Your task to perform on an android device: empty trash in the gmail app Image 0: 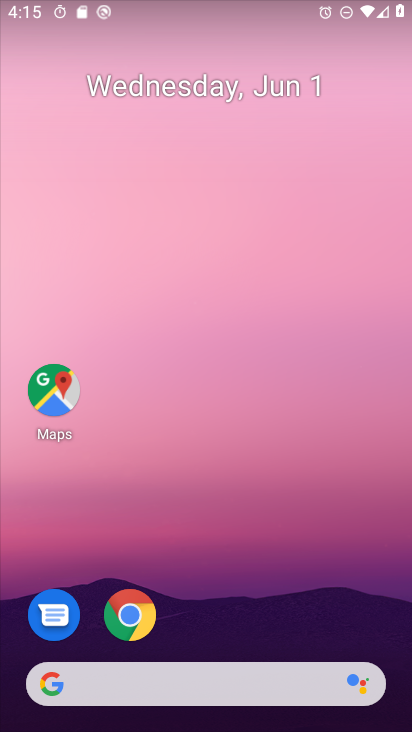
Step 0: drag from (316, 681) to (408, 395)
Your task to perform on an android device: empty trash in the gmail app Image 1: 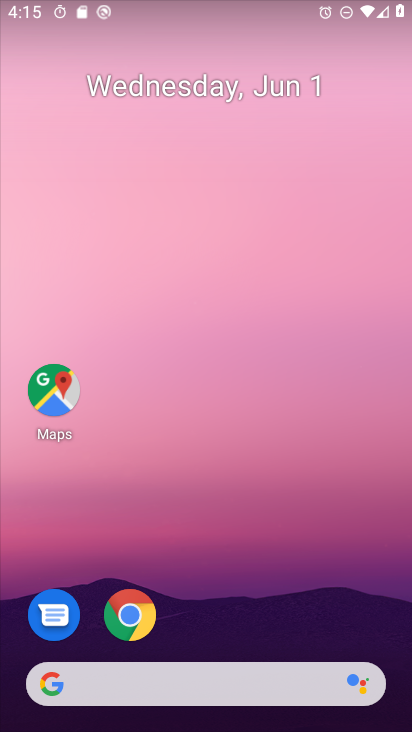
Step 1: click (131, 469)
Your task to perform on an android device: empty trash in the gmail app Image 2: 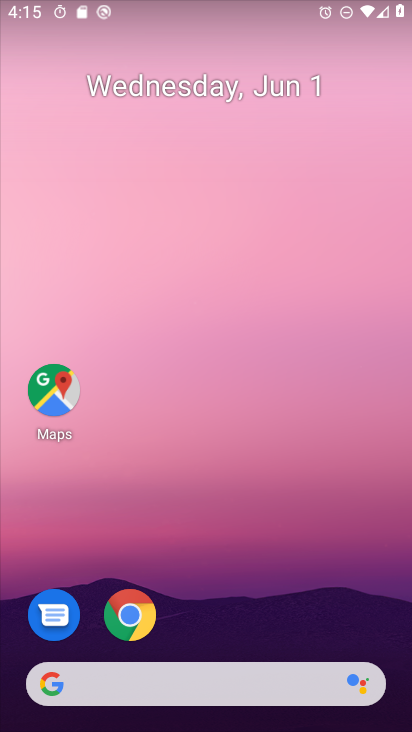
Step 2: drag from (238, 593) to (327, 0)
Your task to perform on an android device: empty trash in the gmail app Image 3: 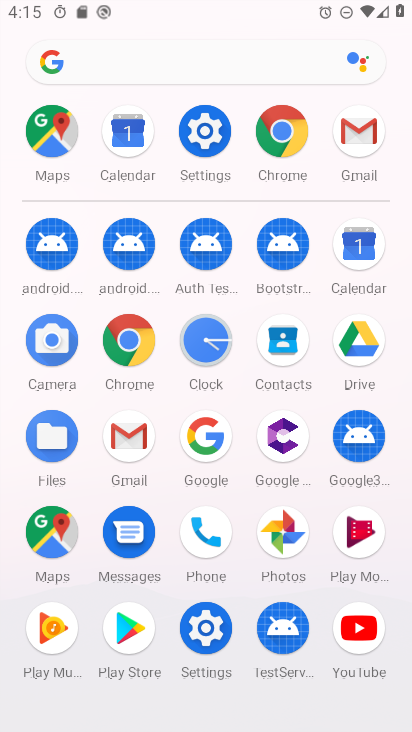
Step 3: click (129, 450)
Your task to perform on an android device: empty trash in the gmail app Image 4: 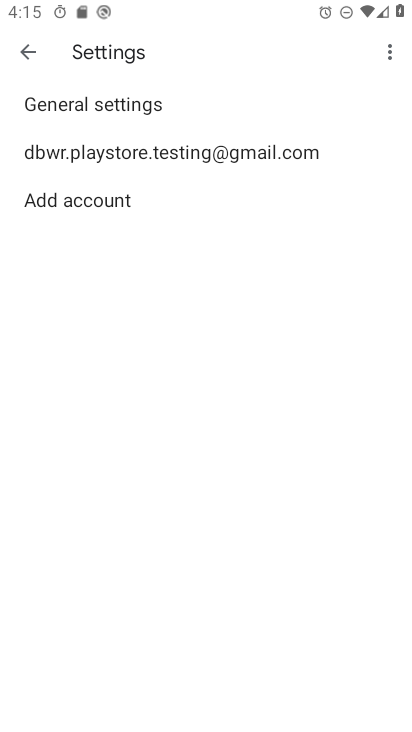
Step 4: press back button
Your task to perform on an android device: empty trash in the gmail app Image 5: 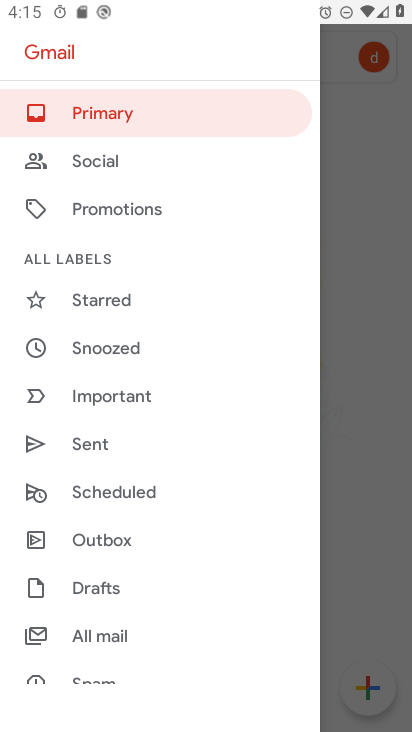
Step 5: drag from (138, 642) to (176, 256)
Your task to perform on an android device: empty trash in the gmail app Image 6: 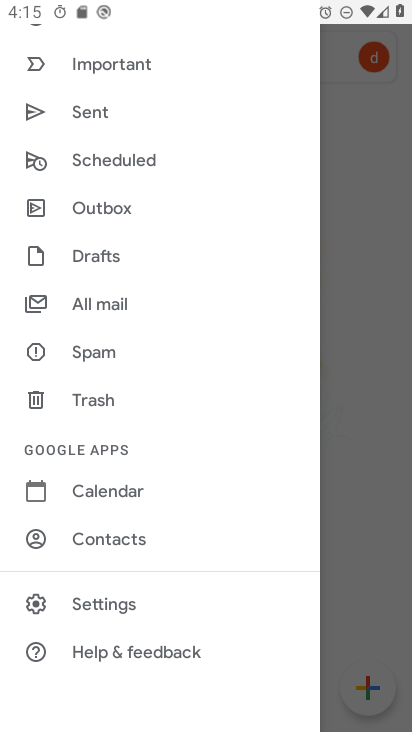
Step 6: click (100, 399)
Your task to perform on an android device: empty trash in the gmail app Image 7: 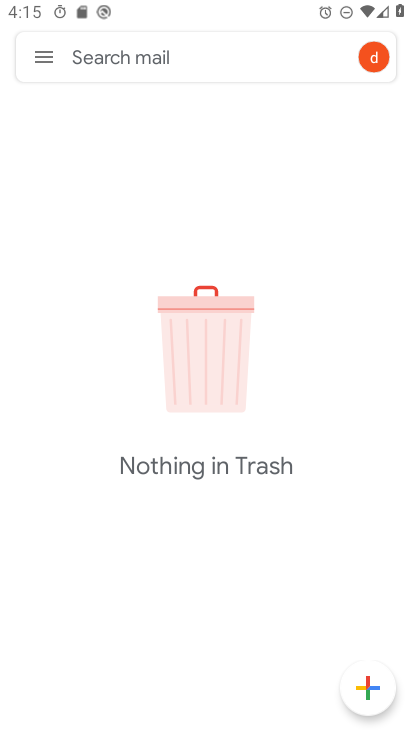
Step 7: task complete